Your task to perform on an android device: search for starred emails in the gmail app Image 0: 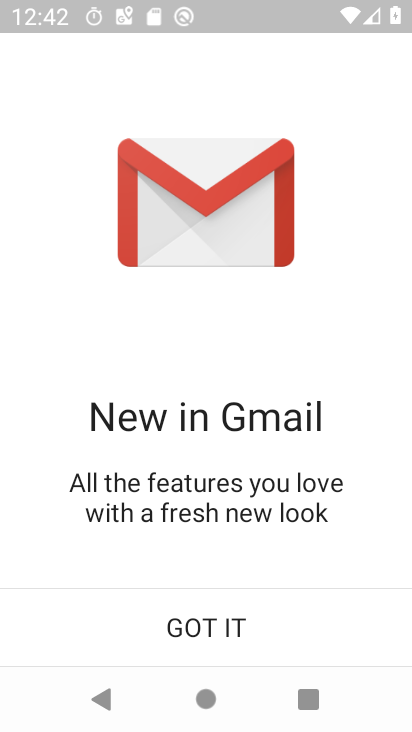
Step 0: click (202, 629)
Your task to perform on an android device: search for starred emails in the gmail app Image 1: 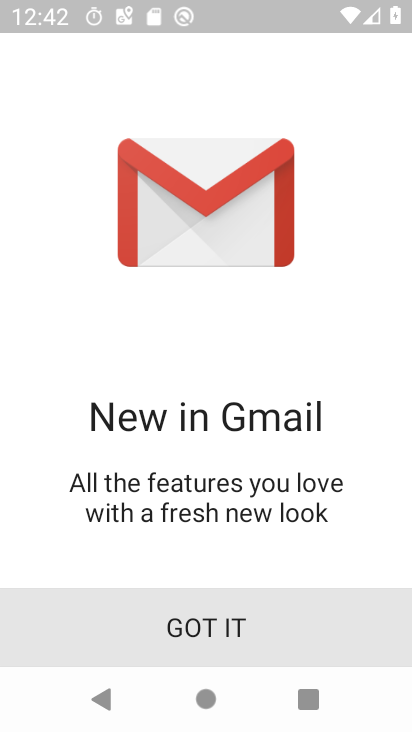
Step 1: click (201, 634)
Your task to perform on an android device: search for starred emails in the gmail app Image 2: 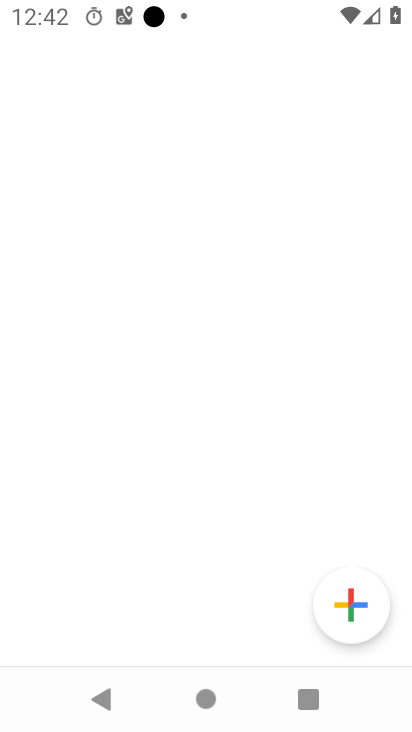
Step 2: click (204, 621)
Your task to perform on an android device: search for starred emails in the gmail app Image 3: 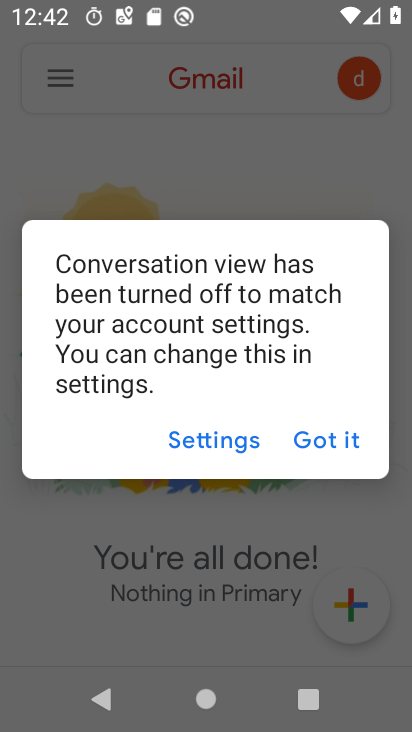
Step 3: click (312, 432)
Your task to perform on an android device: search for starred emails in the gmail app Image 4: 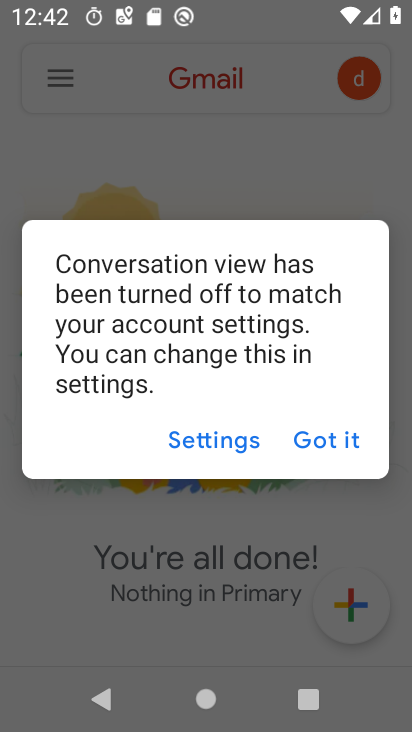
Step 4: click (320, 434)
Your task to perform on an android device: search for starred emails in the gmail app Image 5: 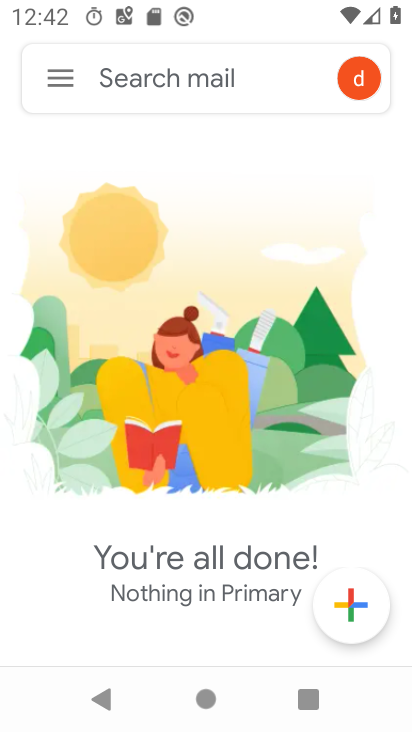
Step 5: drag from (68, 79) to (110, 460)
Your task to perform on an android device: search for starred emails in the gmail app Image 6: 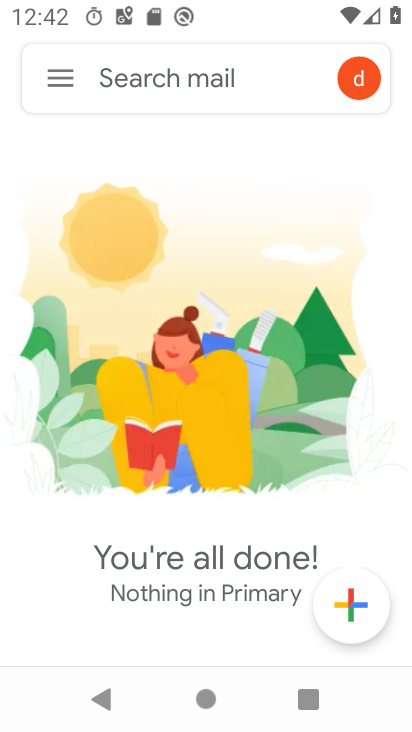
Step 6: drag from (62, 70) to (87, 220)
Your task to perform on an android device: search for starred emails in the gmail app Image 7: 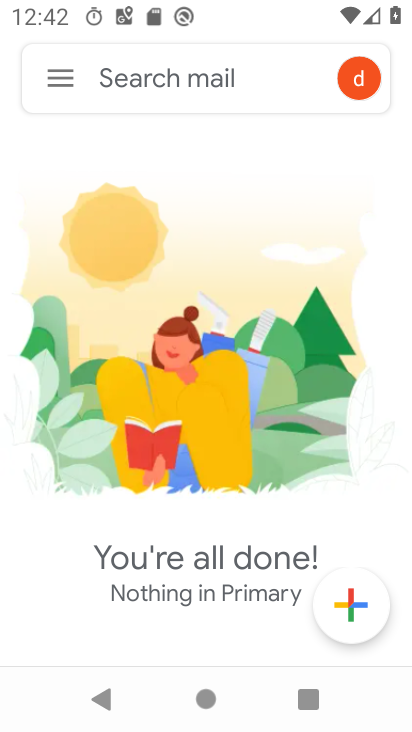
Step 7: click (57, 68)
Your task to perform on an android device: search for starred emails in the gmail app Image 8: 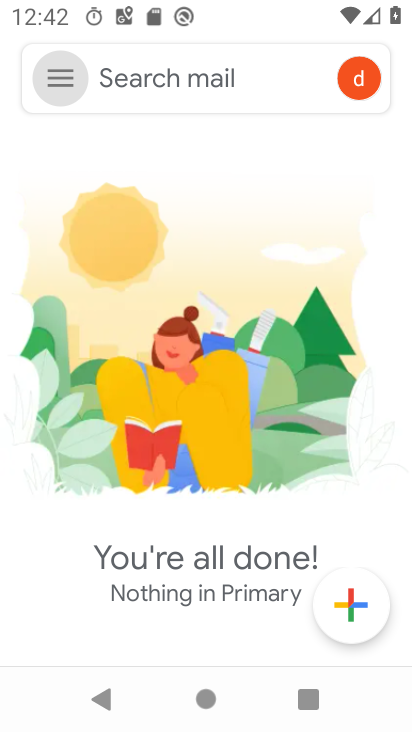
Step 8: drag from (65, 72) to (362, 508)
Your task to perform on an android device: search for starred emails in the gmail app Image 9: 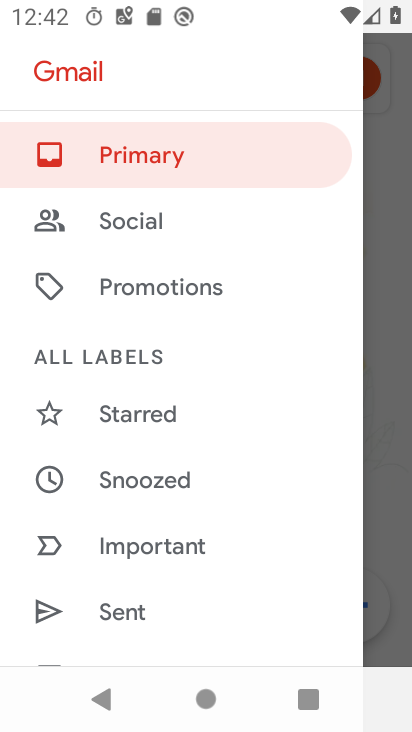
Step 9: click (128, 421)
Your task to perform on an android device: search for starred emails in the gmail app Image 10: 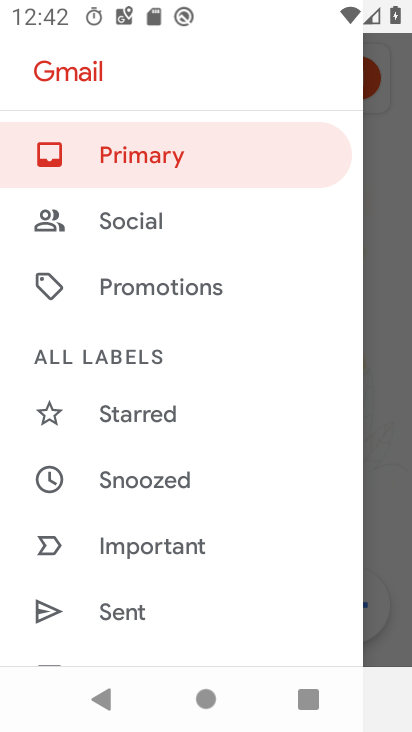
Step 10: click (130, 426)
Your task to perform on an android device: search for starred emails in the gmail app Image 11: 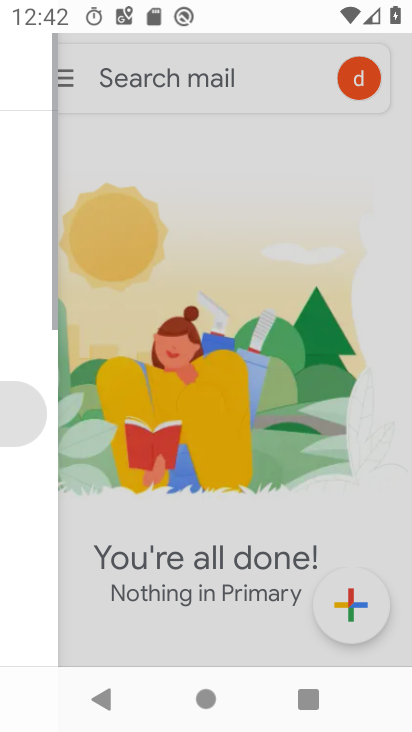
Step 11: click (140, 425)
Your task to perform on an android device: search for starred emails in the gmail app Image 12: 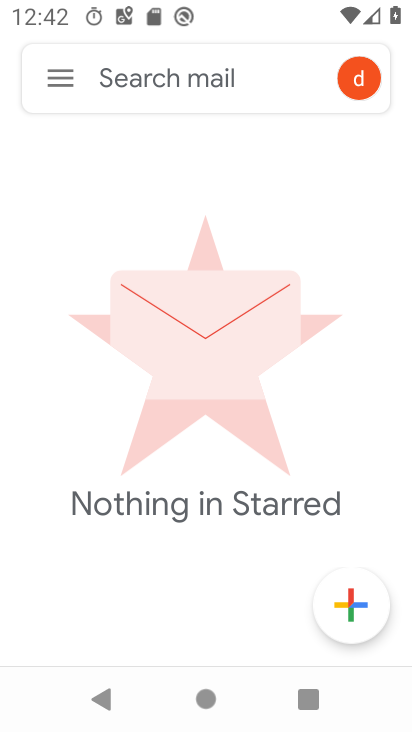
Step 12: task complete